Your task to perform on an android device: What is the recent news? Image 0: 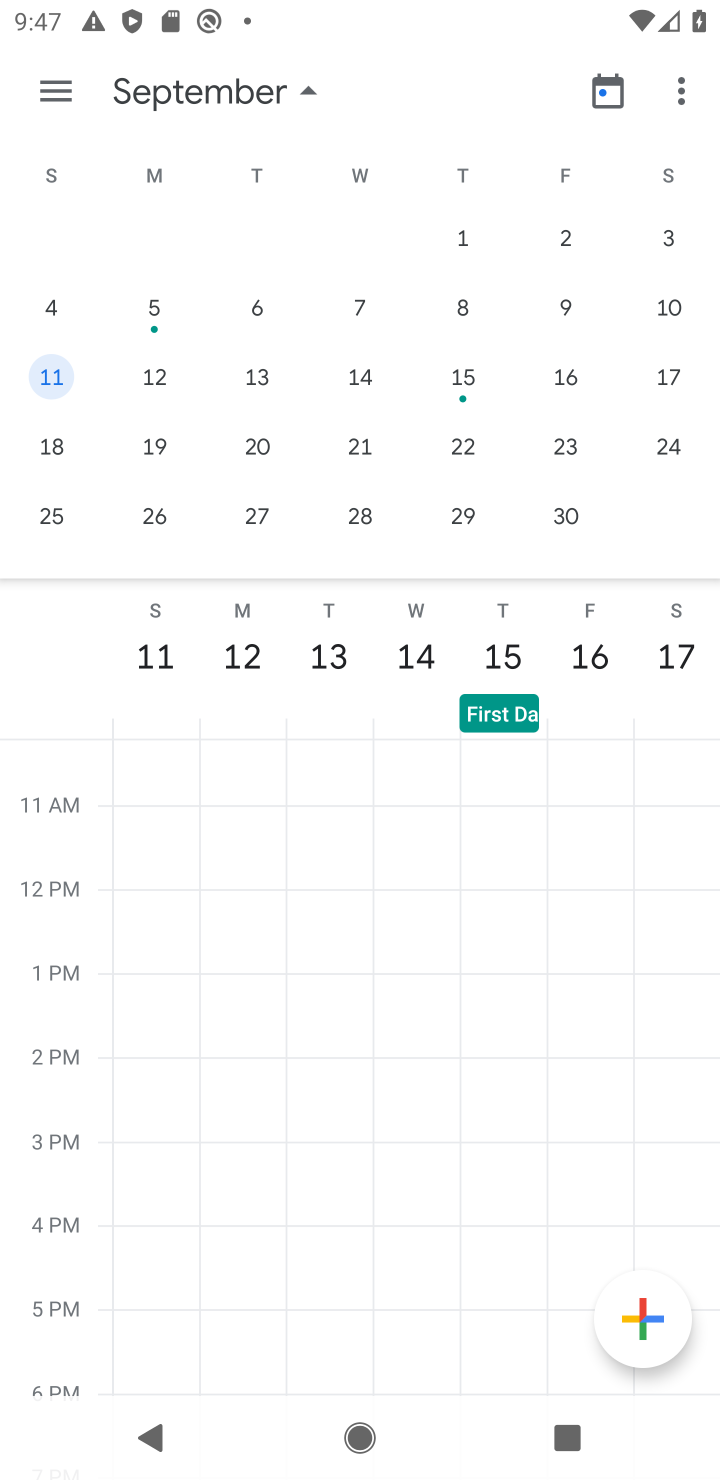
Step 0: press home button
Your task to perform on an android device: What is the recent news? Image 1: 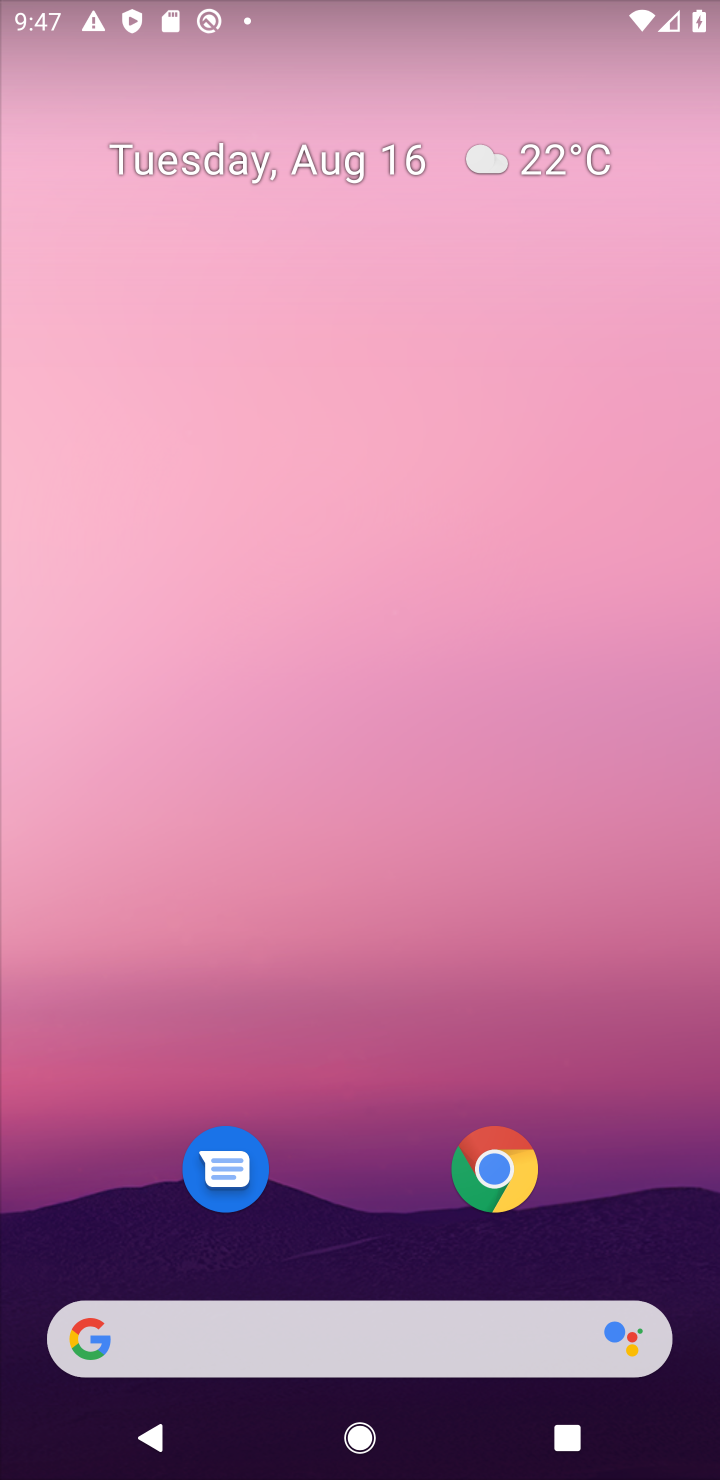
Step 1: drag from (339, 1053) to (343, 134)
Your task to perform on an android device: What is the recent news? Image 2: 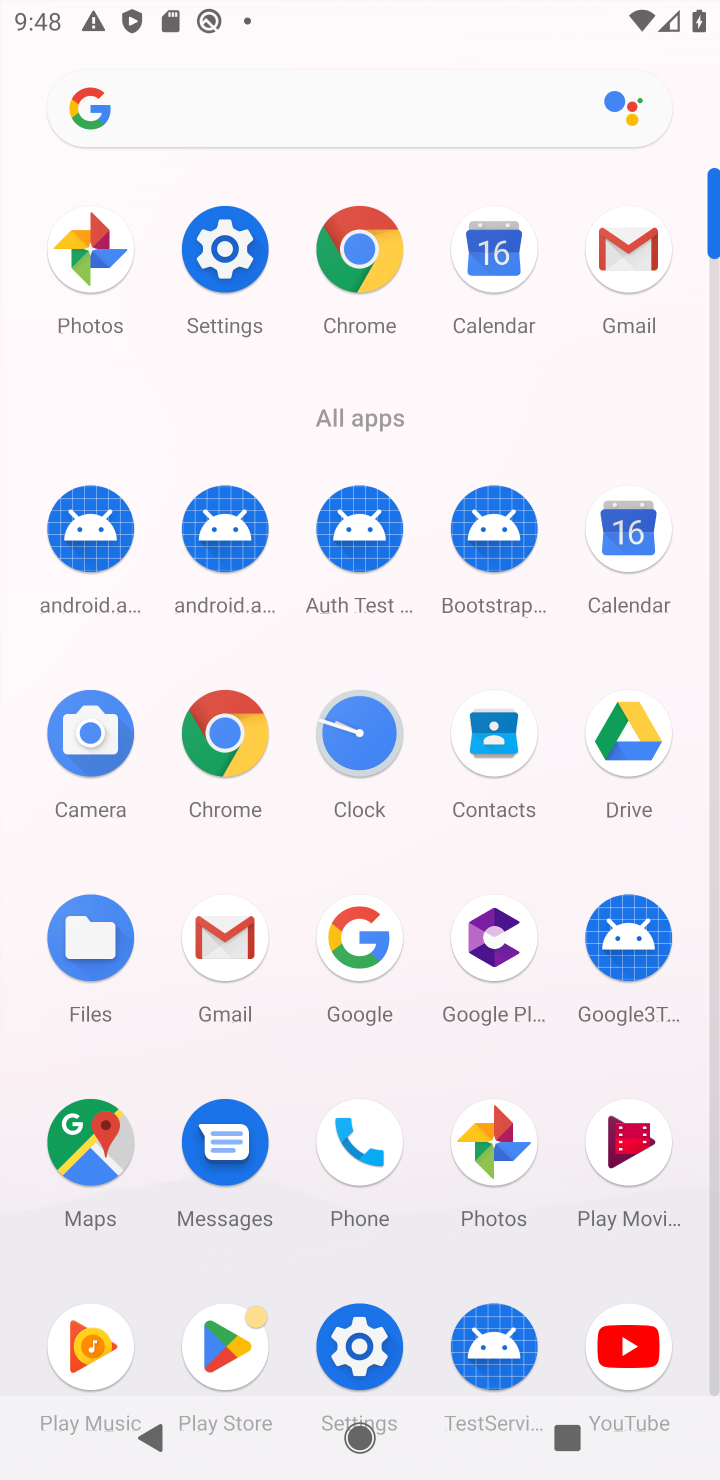
Step 2: click (340, 964)
Your task to perform on an android device: What is the recent news? Image 3: 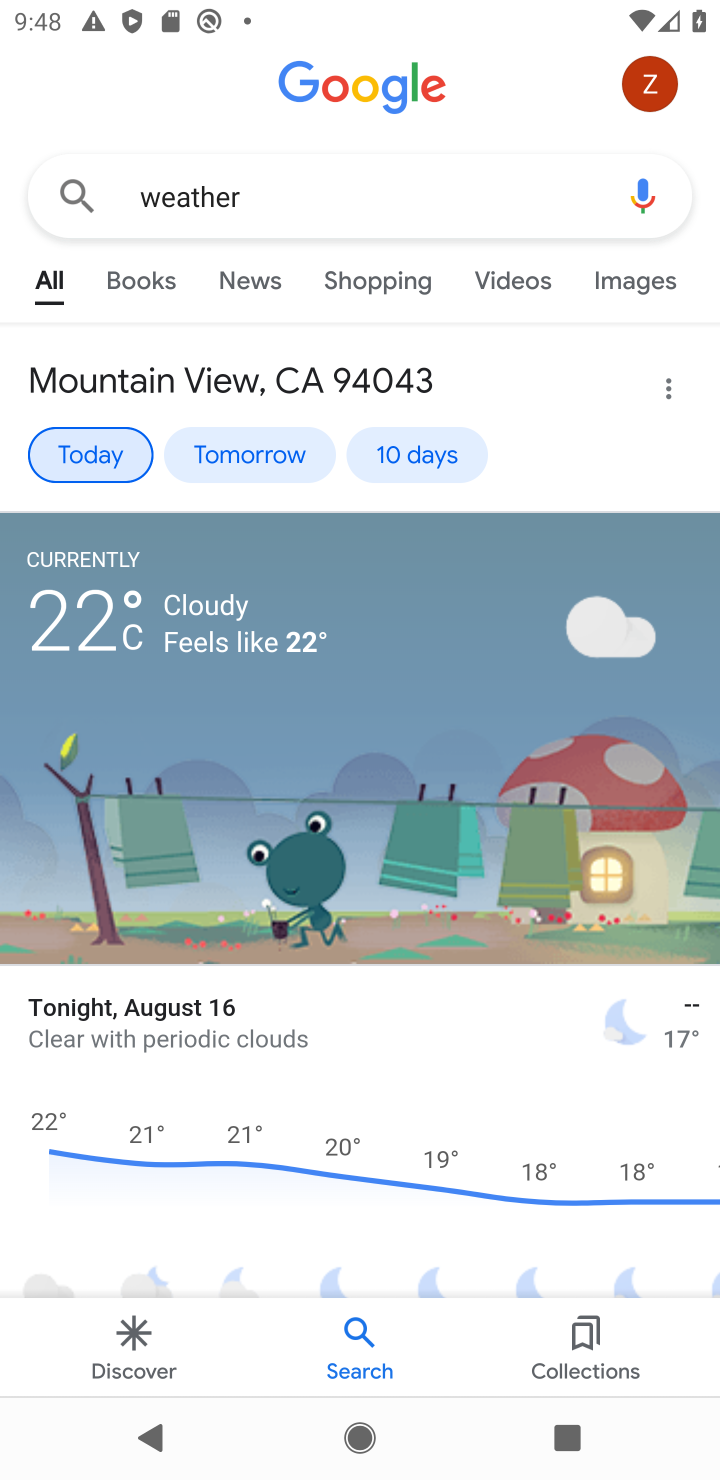
Step 3: click (321, 194)
Your task to perform on an android device: What is the recent news? Image 4: 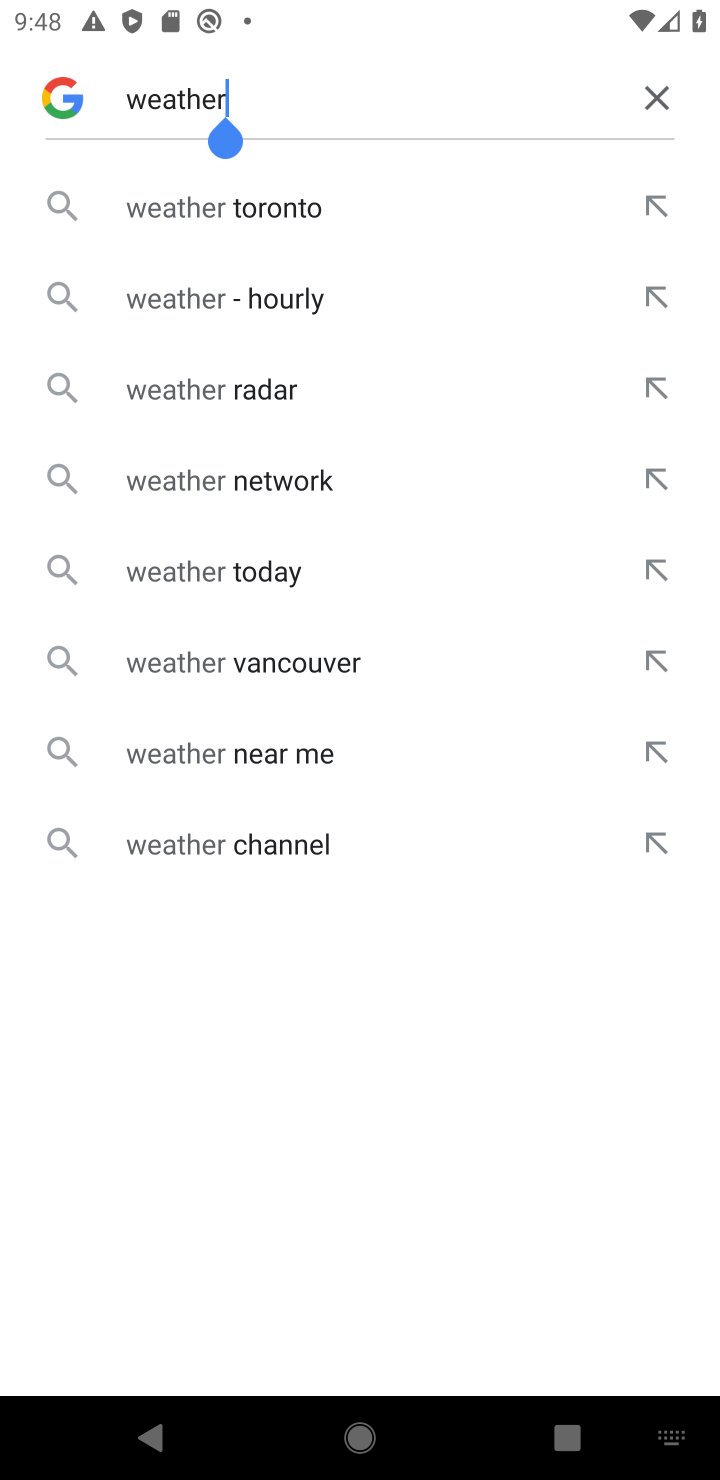
Step 4: click (647, 97)
Your task to perform on an android device: What is the recent news? Image 5: 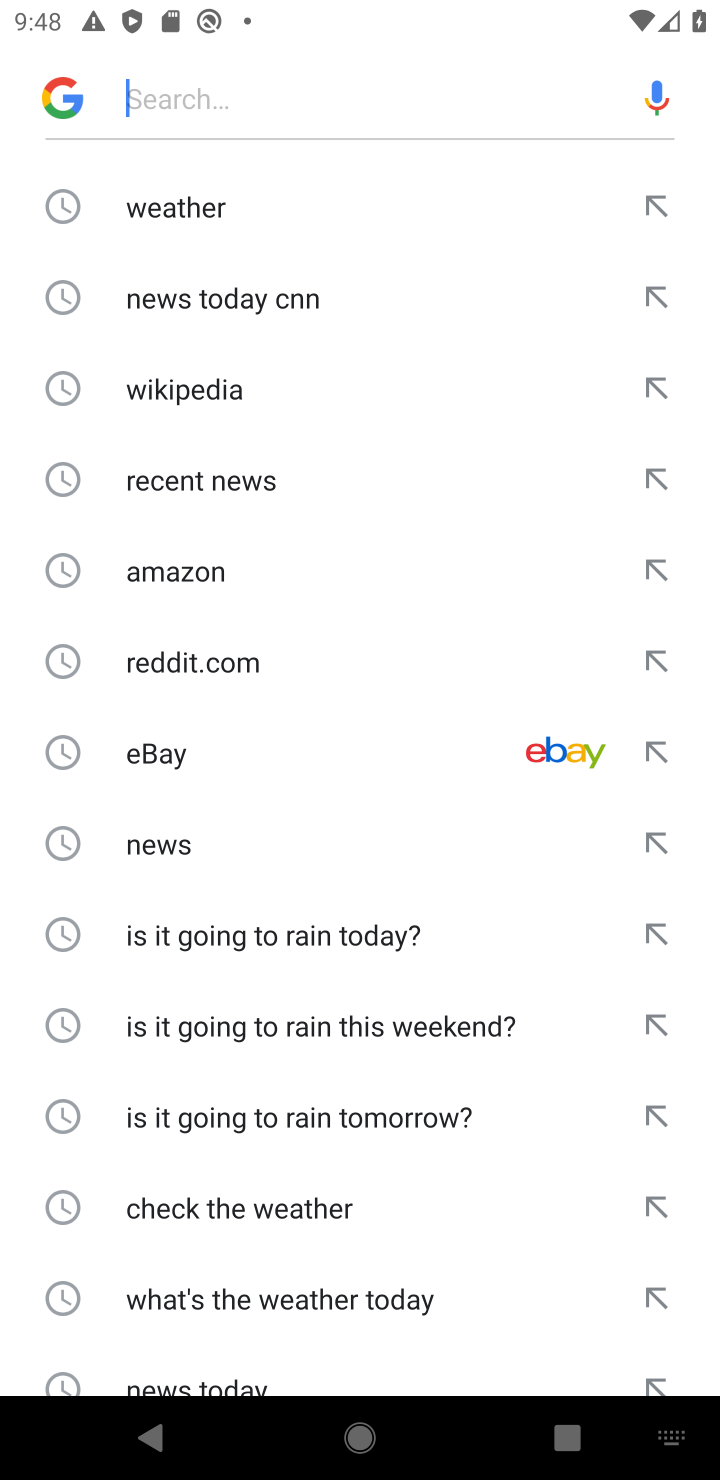
Step 5: click (206, 484)
Your task to perform on an android device: What is the recent news? Image 6: 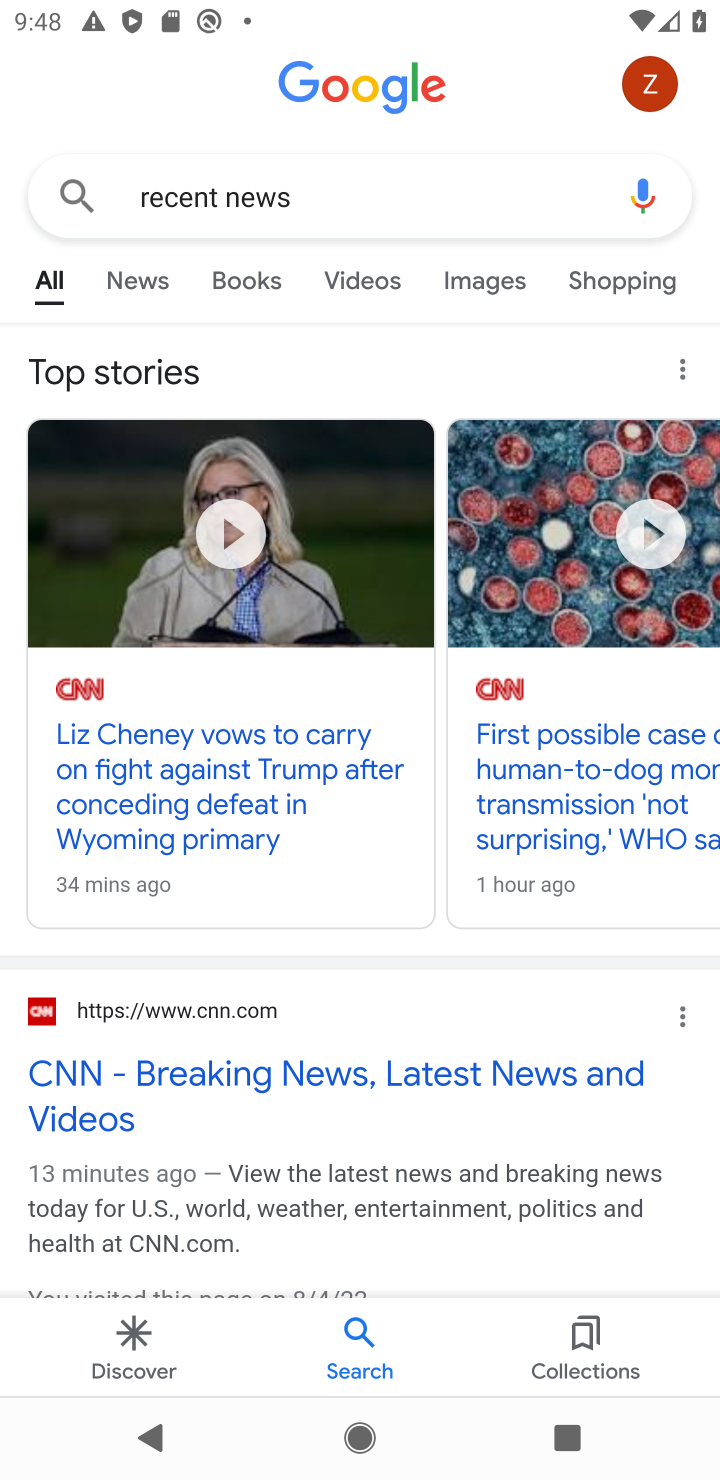
Step 6: task complete